Your task to perform on an android device: Toggle the flashlight Image 0: 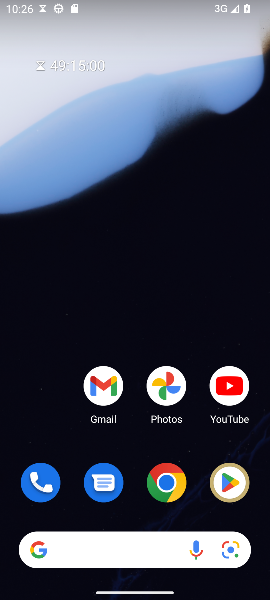
Step 0: drag from (133, 513) to (48, 130)
Your task to perform on an android device: Toggle the flashlight Image 1: 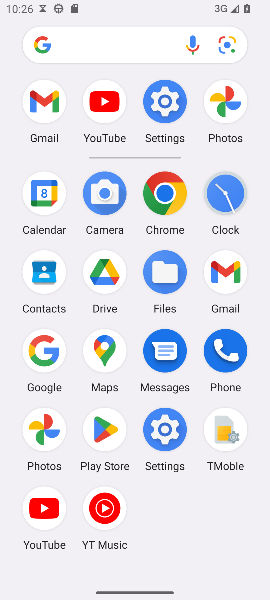
Step 1: click (172, 100)
Your task to perform on an android device: Toggle the flashlight Image 2: 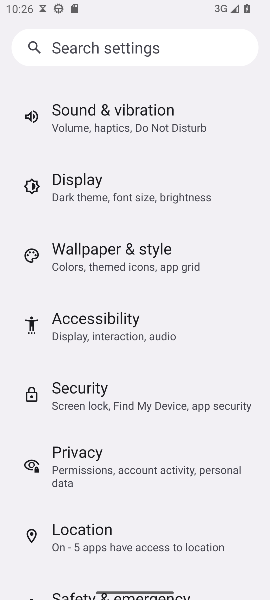
Step 2: task complete